Your task to perform on an android device: toggle sleep mode Image 0: 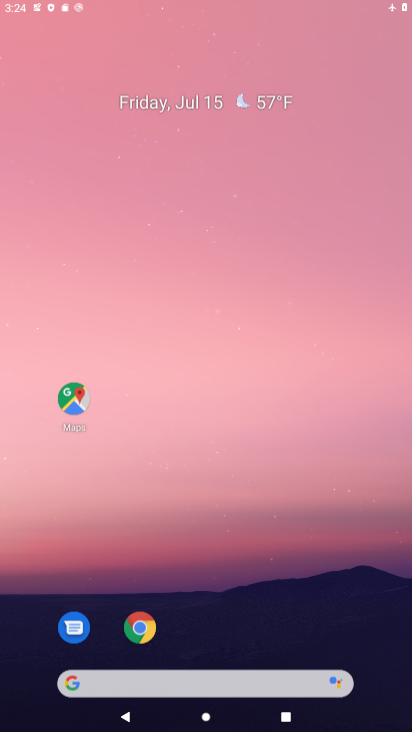
Step 0: drag from (286, 613) to (275, 201)
Your task to perform on an android device: toggle sleep mode Image 1: 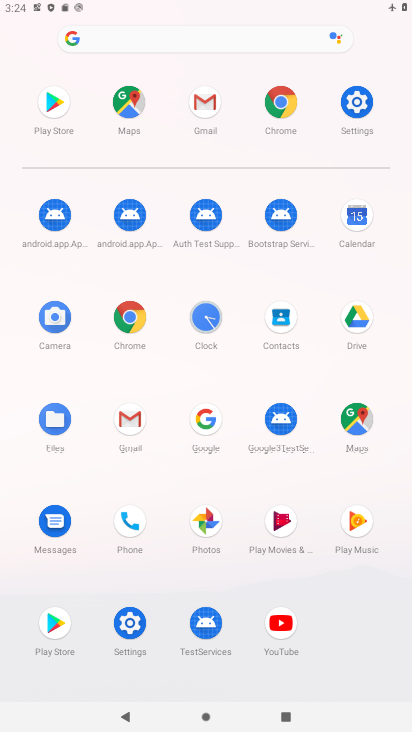
Step 1: click (361, 96)
Your task to perform on an android device: toggle sleep mode Image 2: 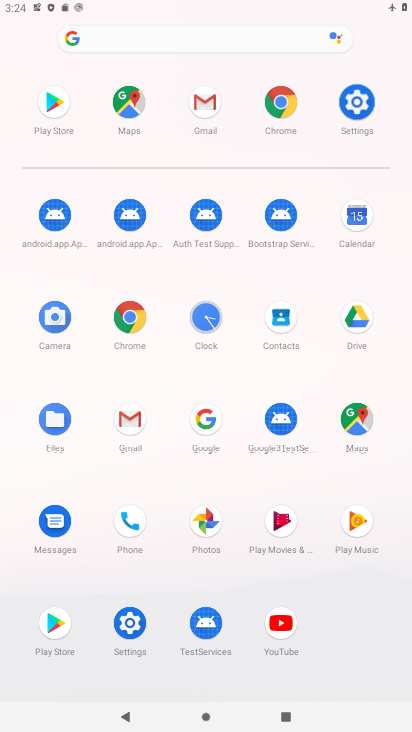
Step 2: click (361, 97)
Your task to perform on an android device: toggle sleep mode Image 3: 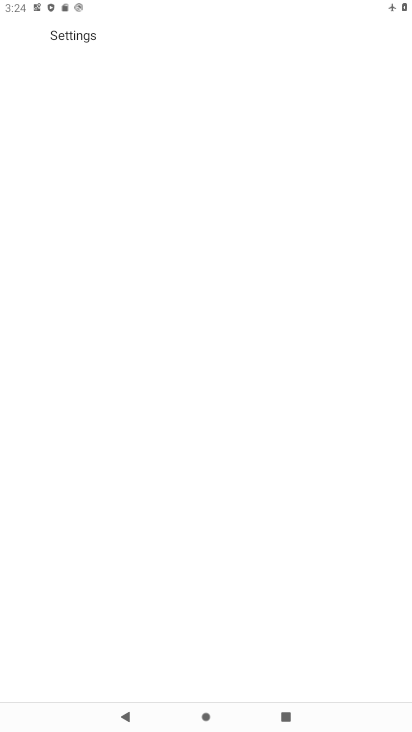
Step 3: click (361, 97)
Your task to perform on an android device: toggle sleep mode Image 4: 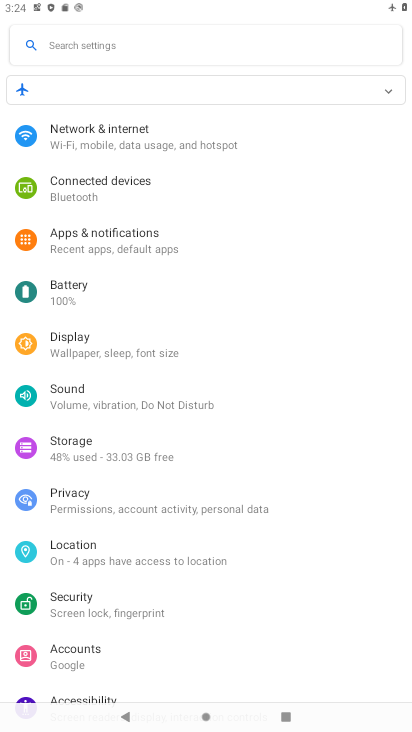
Step 4: click (68, 343)
Your task to perform on an android device: toggle sleep mode Image 5: 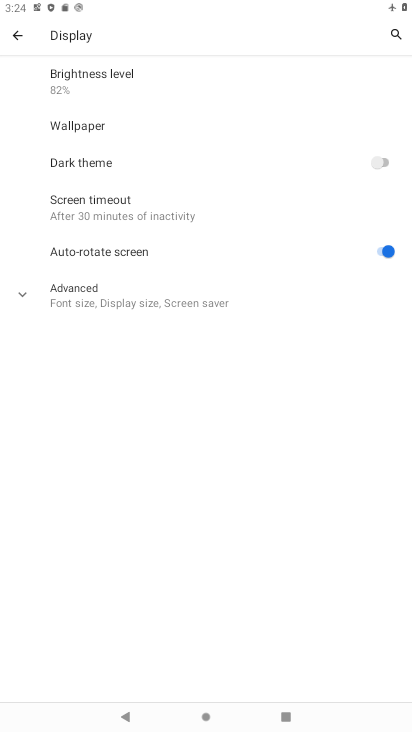
Step 5: click (100, 206)
Your task to perform on an android device: toggle sleep mode Image 6: 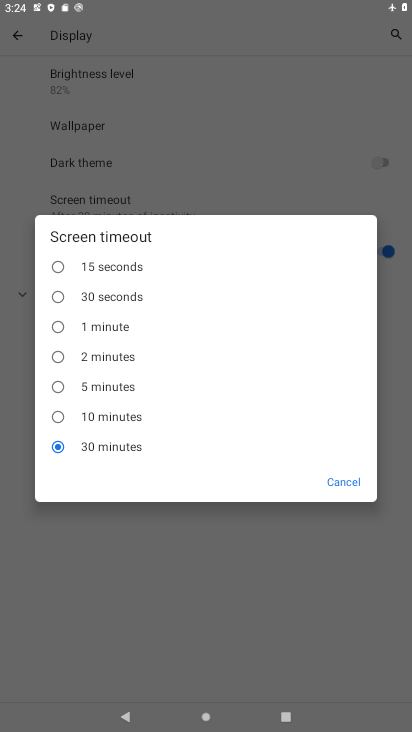
Step 6: click (58, 291)
Your task to perform on an android device: toggle sleep mode Image 7: 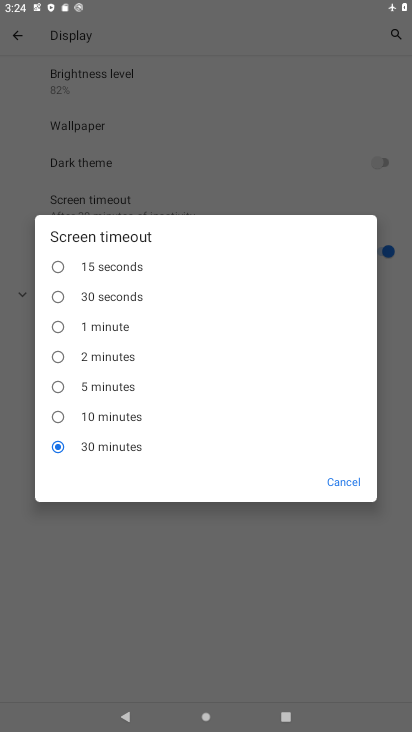
Step 7: click (63, 295)
Your task to perform on an android device: toggle sleep mode Image 8: 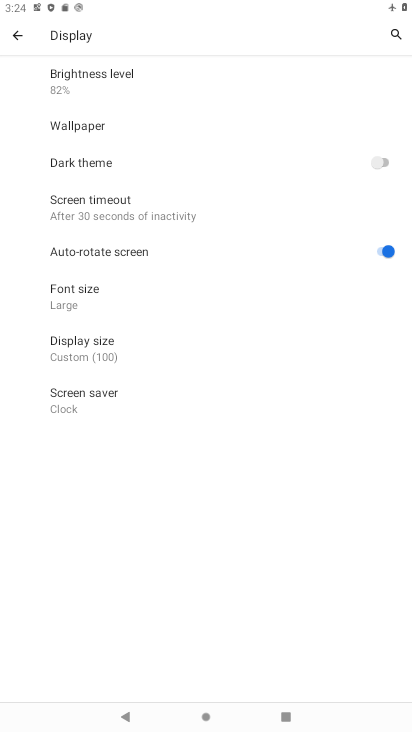
Step 8: task complete